Your task to perform on an android device: Open Google Chrome Image 0: 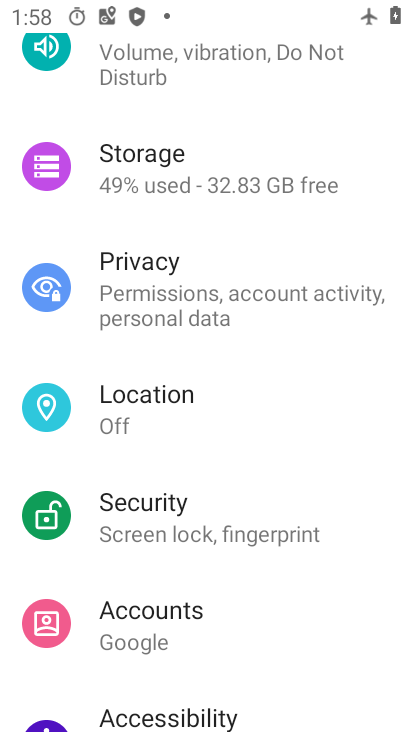
Step 0: press home button
Your task to perform on an android device: Open Google Chrome Image 1: 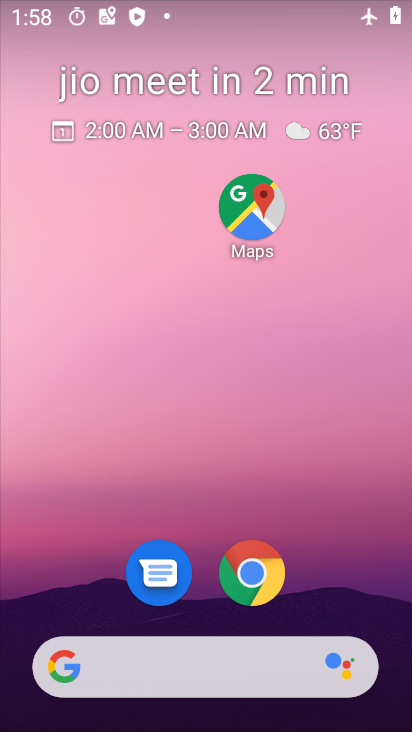
Step 1: drag from (189, 497) to (180, 5)
Your task to perform on an android device: Open Google Chrome Image 2: 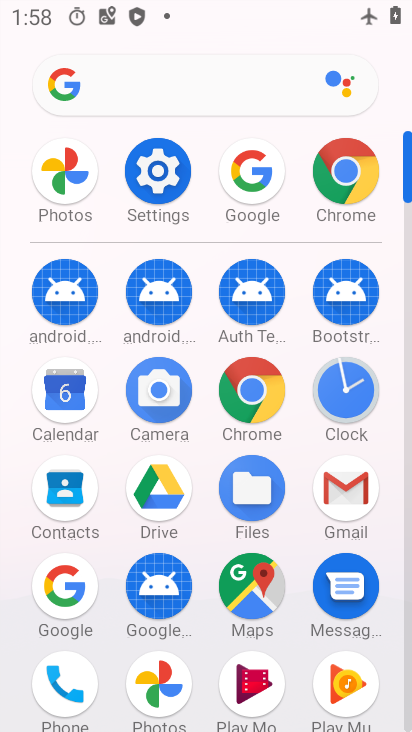
Step 2: click (266, 407)
Your task to perform on an android device: Open Google Chrome Image 3: 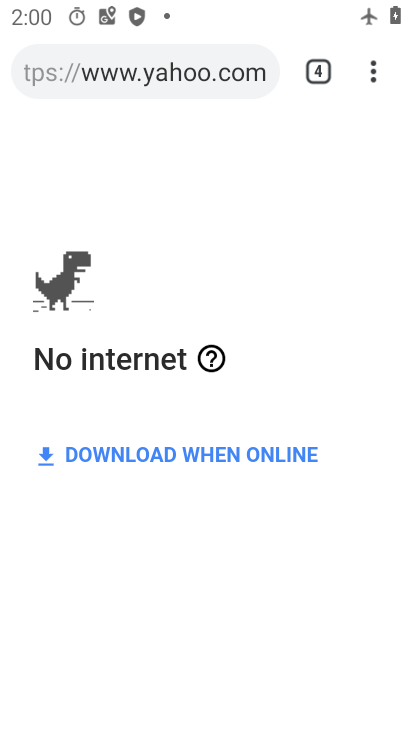
Step 3: task complete